Your task to perform on an android device: Check the weather Image 0: 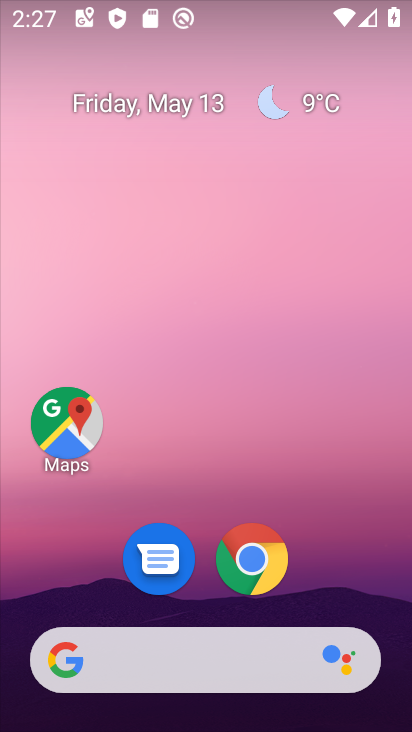
Step 0: drag from (332, 599) to (228, 195)
Your task to perform on an android device: Check the weather Image 1: 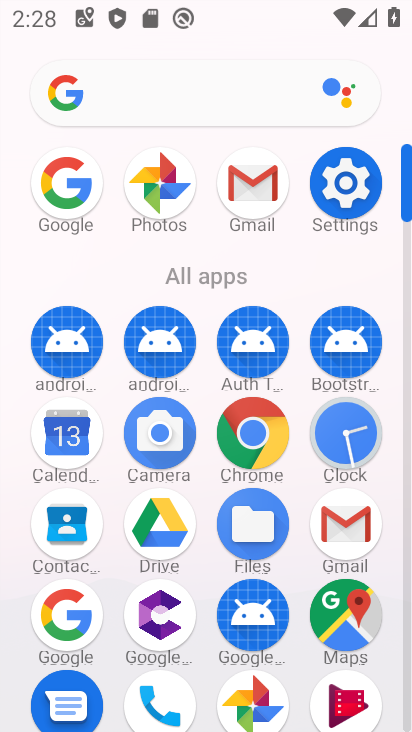
Step 1: click (70, 214)
Your task to perform on an android device: Check the weather Image 2: 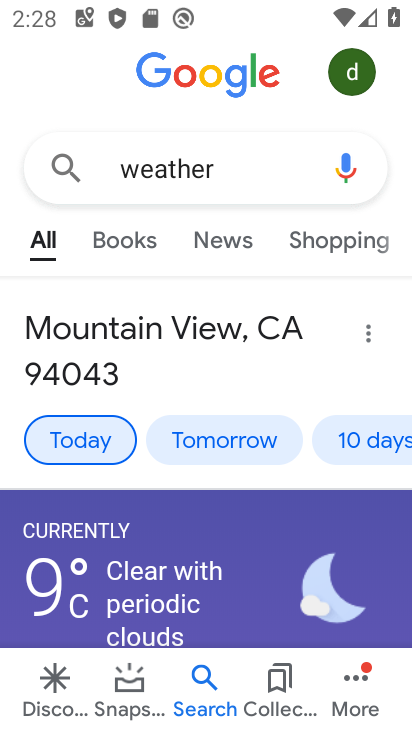
Step 2: click (273, 341)
Your task to perform on an android device: Check the weather Image 3: 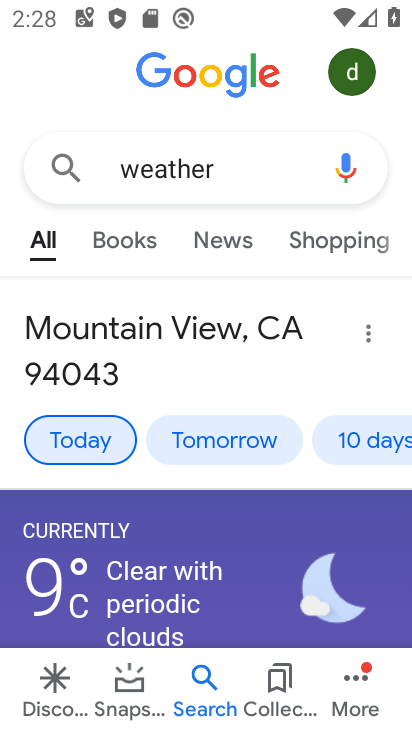
Step 3: task complete